Your task to perform on an android device: Go to location settings Image 0: 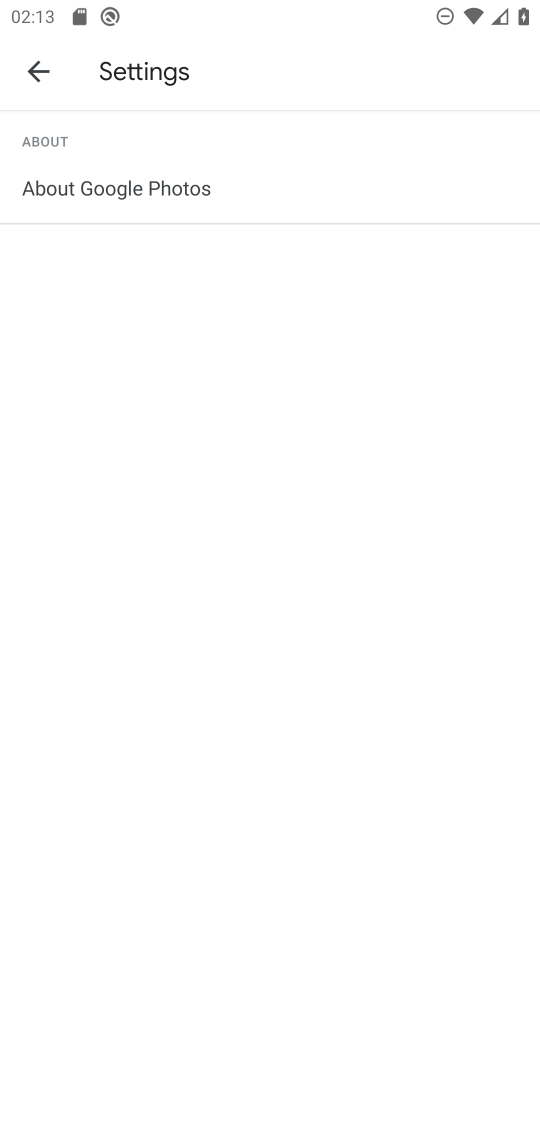
Step 0: press home button
Your task to perform on an android device: Go to location settings Image 1: 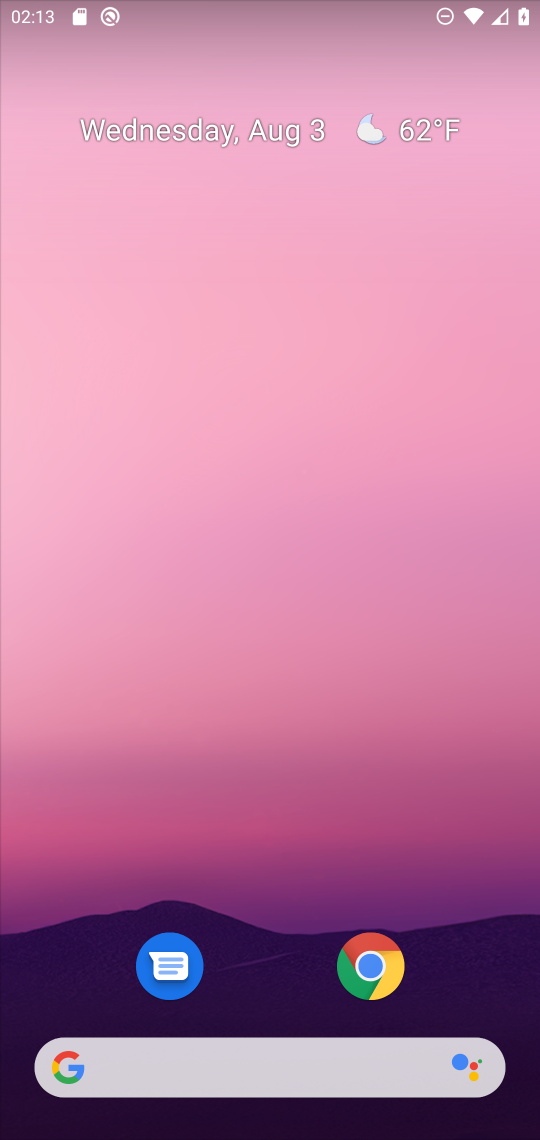
Step 1: drag from (249, 954) to (266, 326)
Your task to perform on an android device: Go to location settings Image 2: 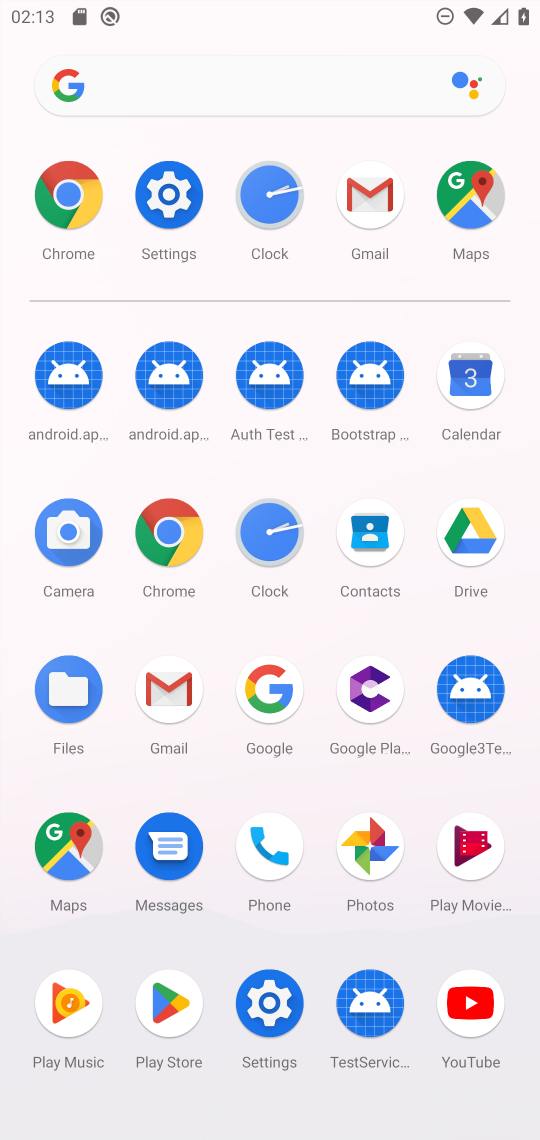
Step 2: click (165, 204)
Your task to perform on an android device: Go to location settings Image 3: 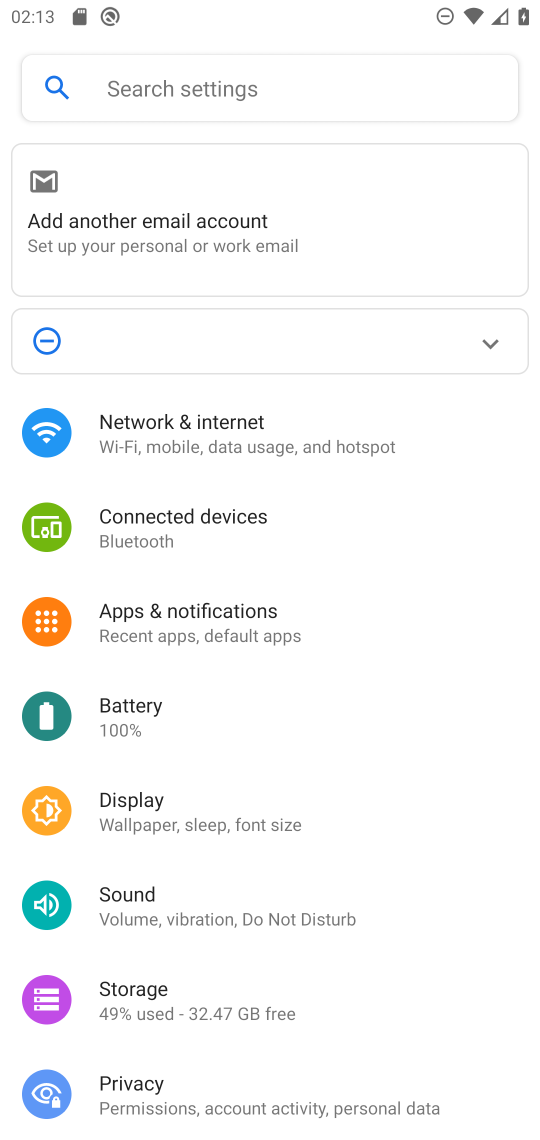
Step 3: drag from (273, 951) to (329, 611)
Your task to perform on an android device: Go to location settings Image 4: 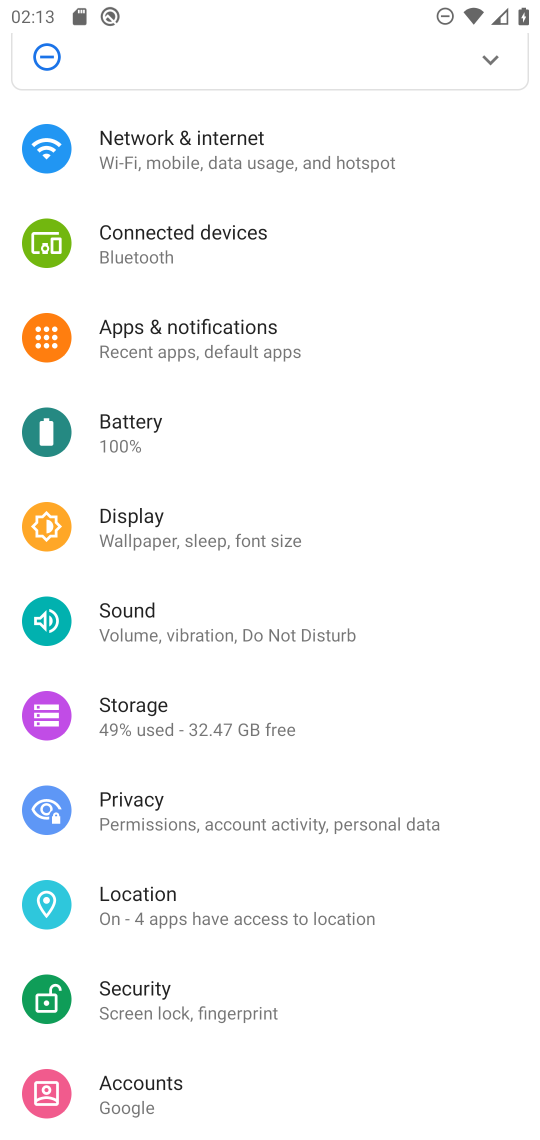
Step 4: click (147, 926)
Your task to perform on an android device: Go to location settings Image 5: 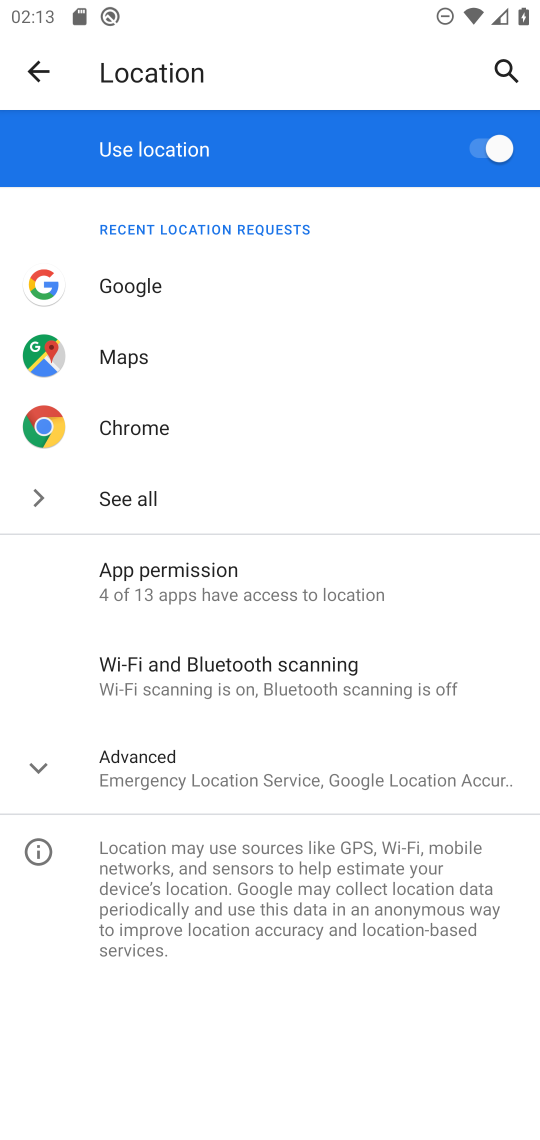
Step 5: task complete